Your task to perform on an android device: Go to Maps Image 0: 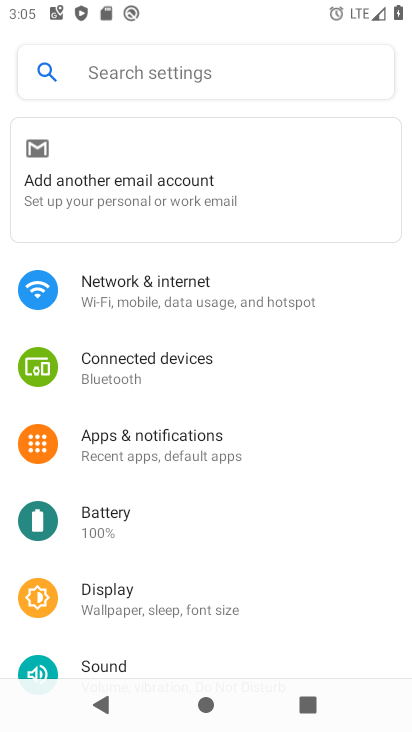
Step 0: press home button
Your task to perform on an android device: Go to Maps Image 1: 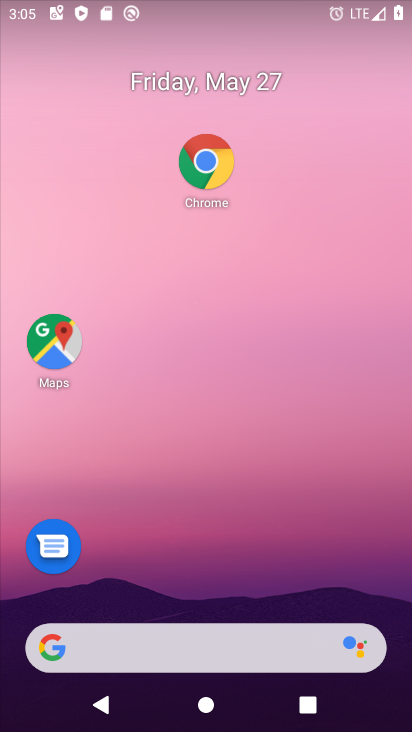
Step 1: click (47, 342)
Your task to perform on an android device: Go to Maps Image 2: 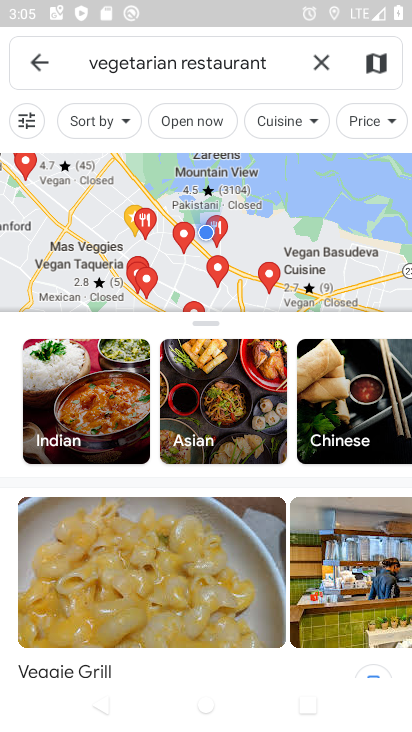
Step 2: task complete